Your task to perform on an android device: check storage Image 0: 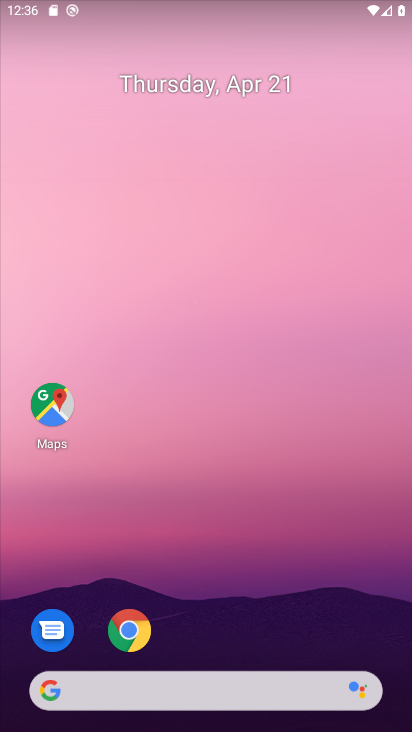
Step 0: drag from (294, 689) to (349, 161)
Your task to perform on an android device: check storage Image 1: 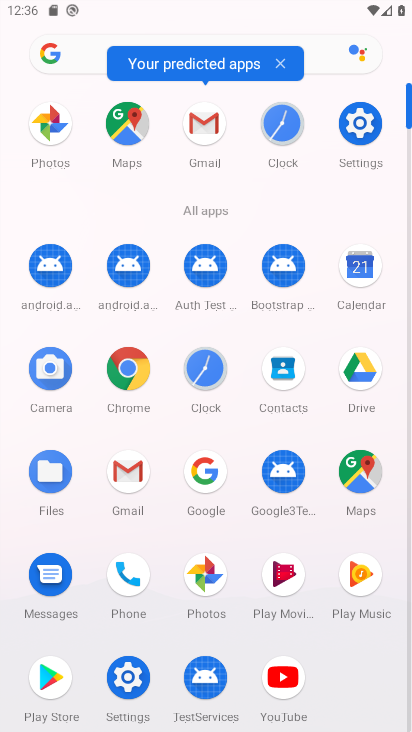
Step 1: click (341, 140)
Your task to perform on an android device: check storage Image 2: 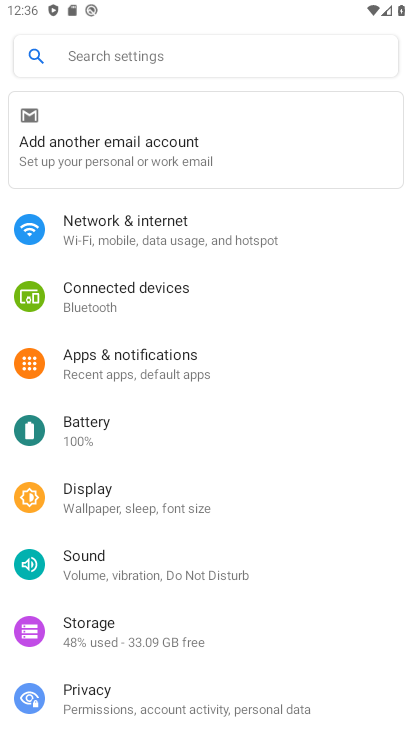
Step 2: click (129, 634)
Your task to perform on an android device: check storage Image 3: 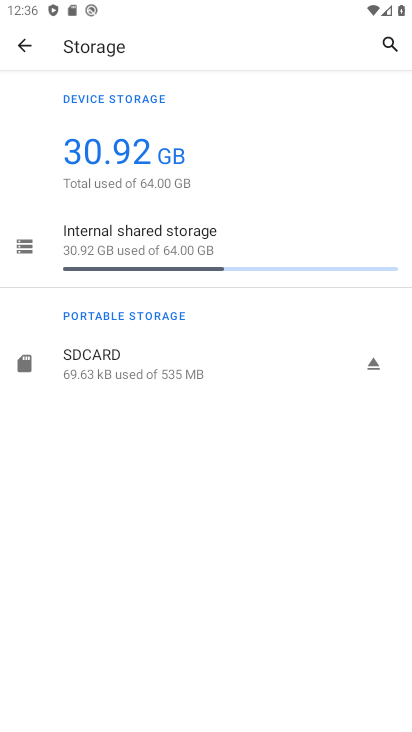
Step 3: click (185, 259)
Your task to perform on an android device: check storage Image 4: 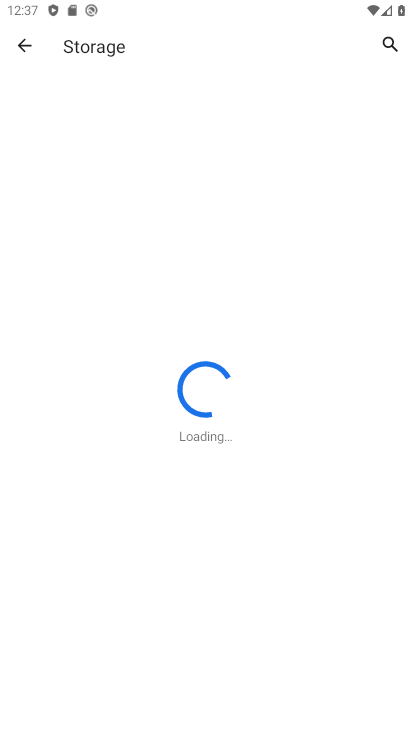
Step 4: task complete